Your task to perform on an android device: turn off picture-in-picture Image 0: 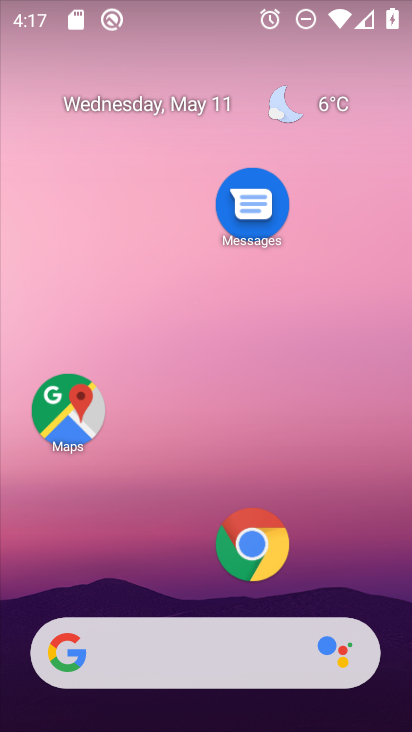
Step 0: drag from (151, 598) to (216, 8)
Your task to perform on an android device: turn off picture-in-picture Image 1: 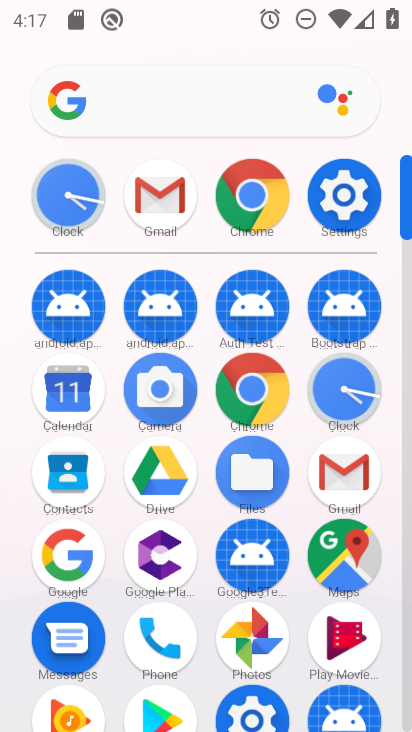
Step 1: click (322, 207)
Your task to perform on an android device: turn off picture-in-picture Image 2: 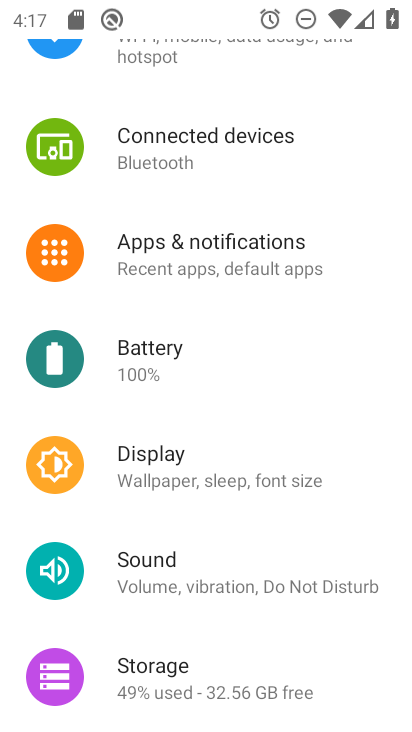
Step 2: drag from (273, 161) to (175, 565)
Your task to perform on an android device: turn off picture-in-picture Image 3: 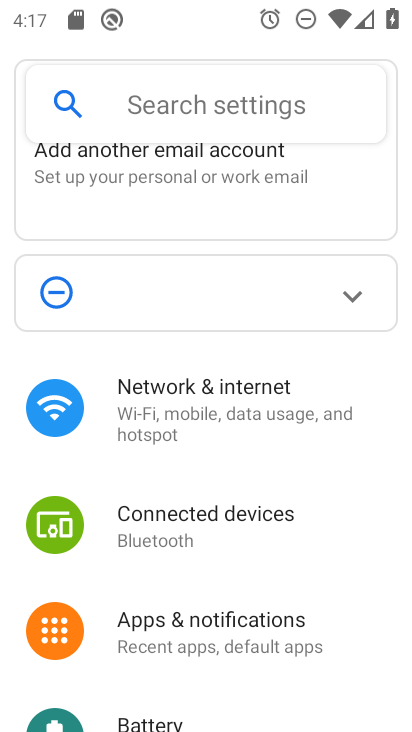
Step 3: click (175, 629)
Your task to perform on an android device: turn off picture-in-picture Image 4: 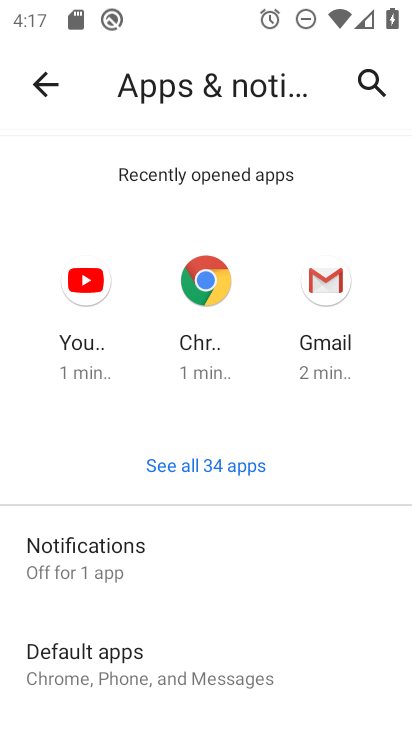
Step 4: drag from (189, 610) to (253, 153)
Your task to perform on an android device: turn off picture-in-picture Image 5: 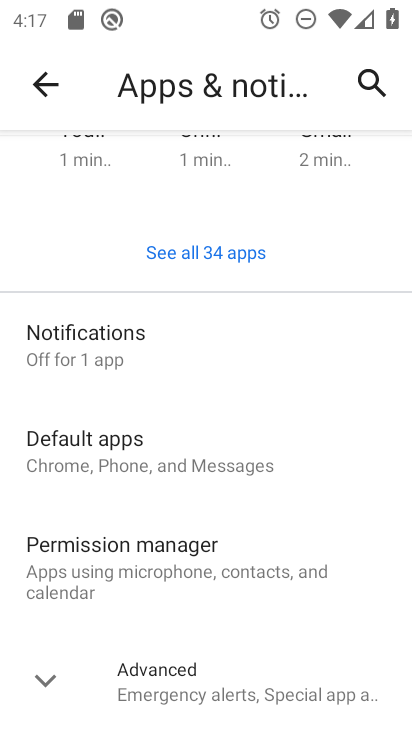
Step 5: click (208, 684)
Your task to perform on an android device: turn off picture-in-picture Image 6: 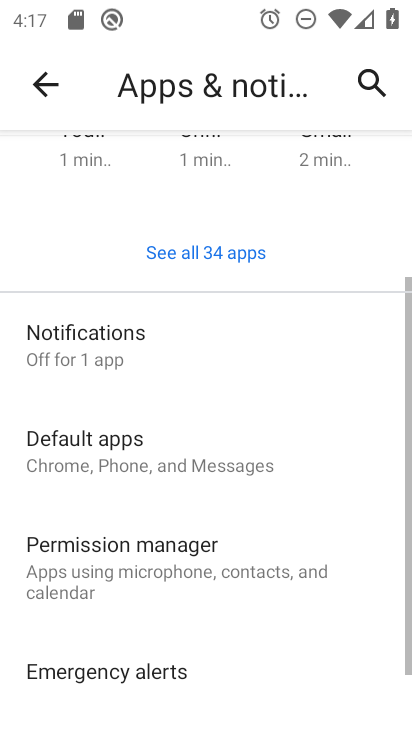
Step 6: drag from (191, 663) to (283, 79)
Your task to perform on an android device: turn off picture-in-picture Image 7: 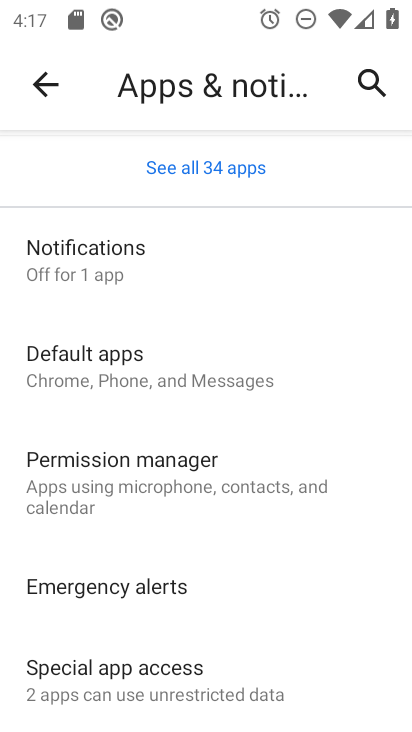
Step 7: click (136, 680)
Your task to perform on an android device: turn off picture-in-picture Image 8: 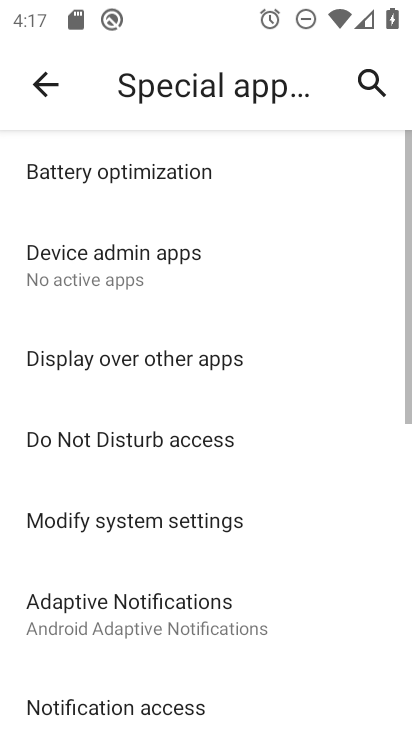
Step 8: drag from (143, 663) to (269, 74)
Your task to perform on an android device: turn off picture-in-picture Image 9: 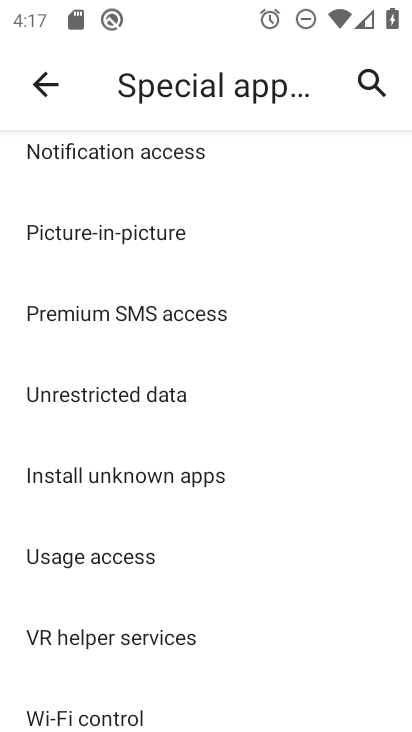
Step 9: click (80, 236)
Your task to perform on an android device: turn off picture-in-picture Image 10: 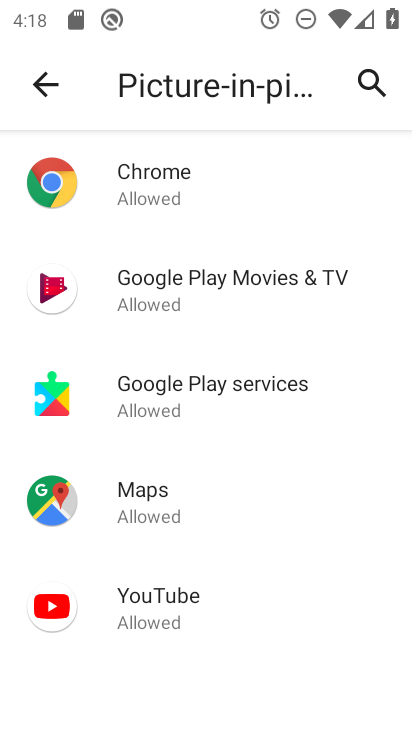
Step 10: click (179, 193)
Your task to perform on an android device: turn off picture-in-picture Image 11: 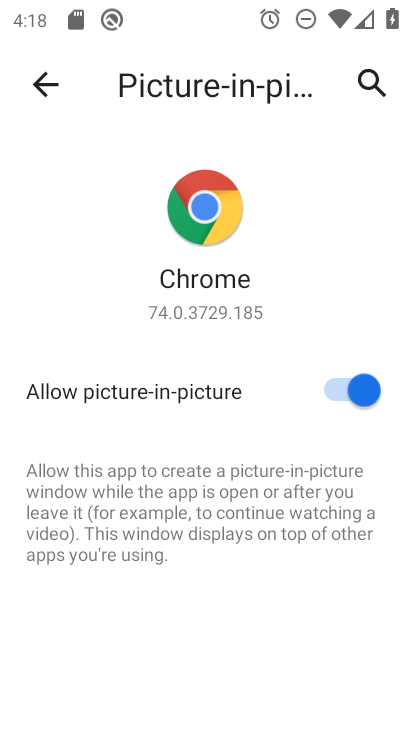
Step 11: click (353, 379)
Your task to perform on an android device: turn off picture-in-picture Image 12: 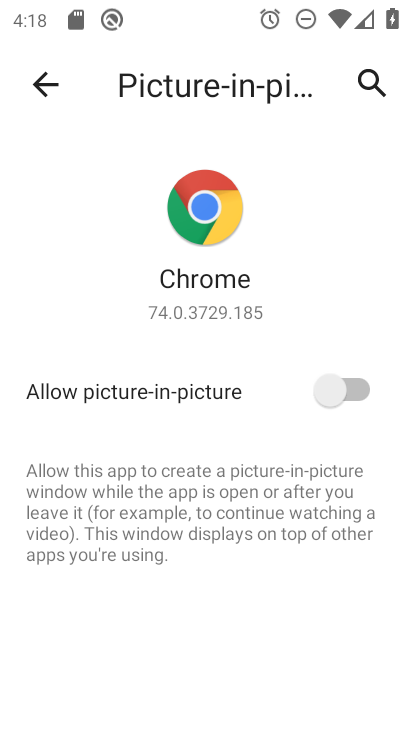
Step 12: task complete